Your task to perform on an android device: search for starred emails in the gmail app Image 0: 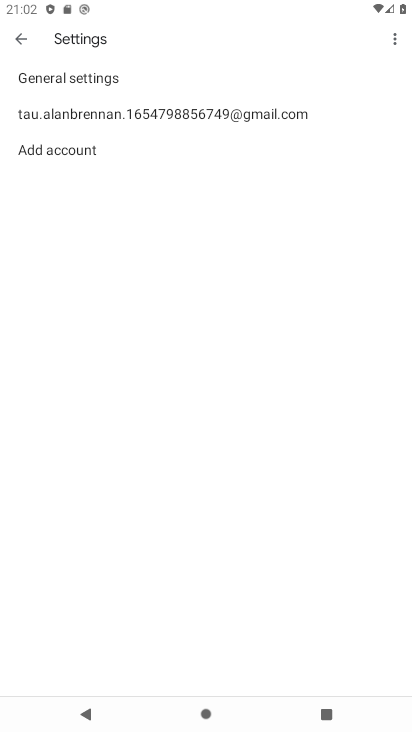
Step 0: drag from (254, 674) to (356, 10)
Your task to perform on an android device: search for starred emails in the gmail app Image 1: 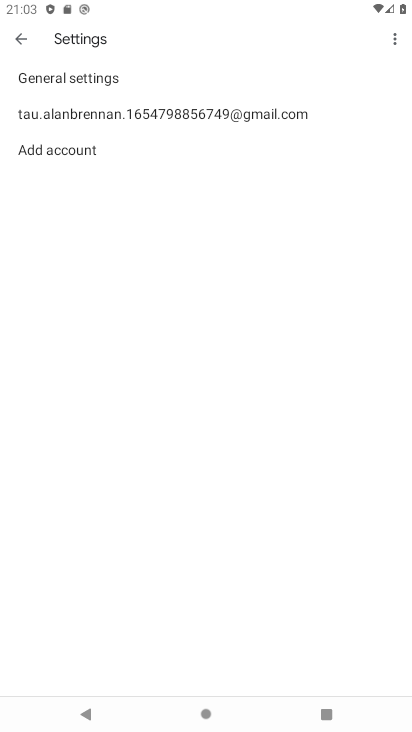
Step 1: click (16, 37)
Your task to perform on an android device: search for starred emails in the gmail app Image 2: 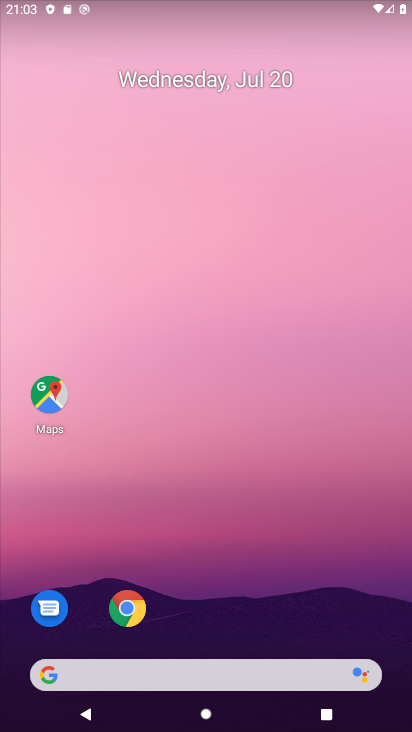
Step 2: drag from (251, 568) to (226, 83)
Your task to perform on an android device: search for starred emails in the gmail app Image 3: 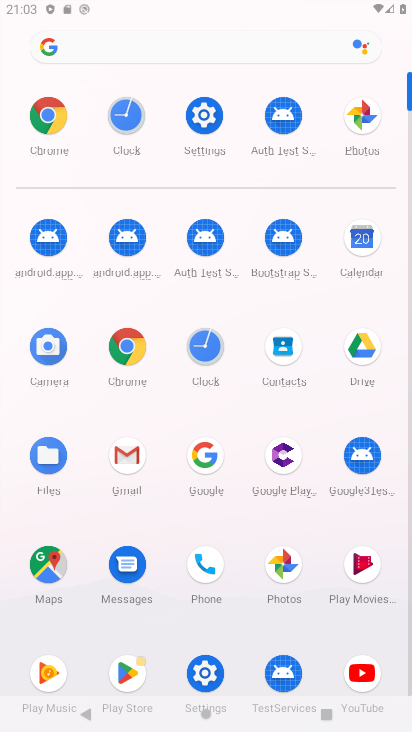
Step 3: drag from (194, 400) to (156, 131)
Your task to perform on an android device: search for starred emails in the gmail app Image 4: 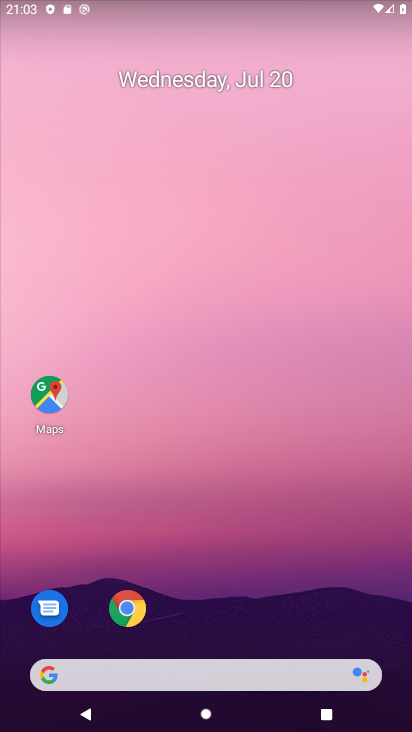
Step 4: drag from (212, 600) to (164, 111)
Your task to perform on an android device: search for starred emails in the gmail app Image 5: 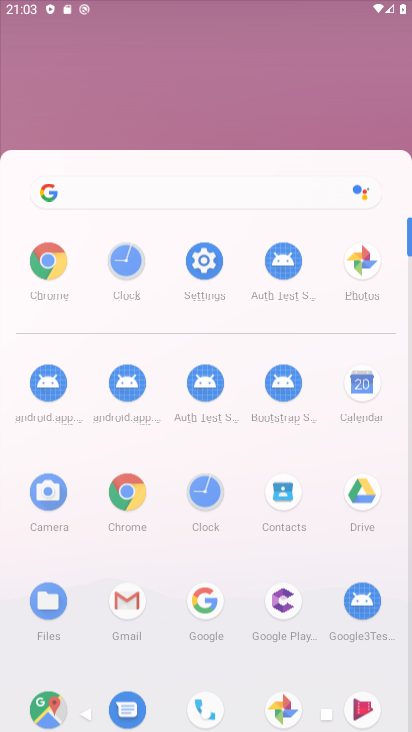
Step 5: drag from (224, 430) to (149, 67)
Your task to perform on an android device: search for starred emails in the gmail app Image 6: 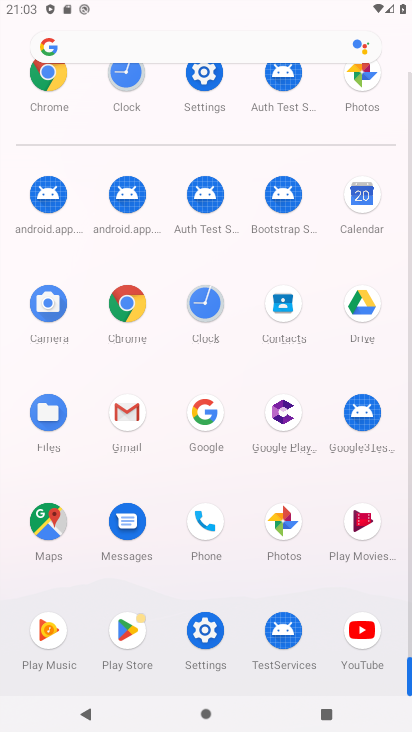
Step 6: click (130, 405)
Your task to perform on an android device: search for starred emails in the gmail app Image 7: 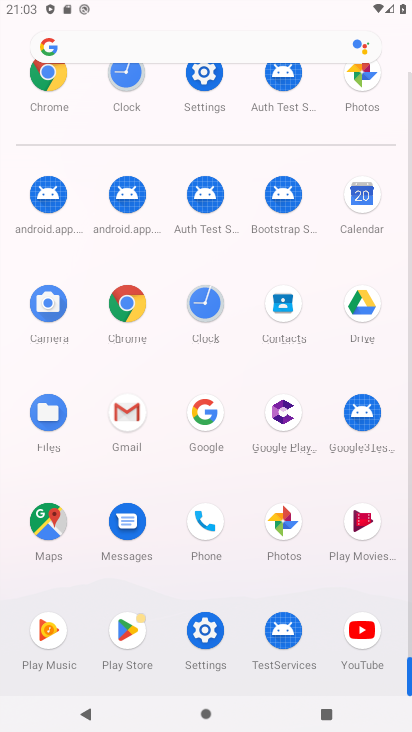
Step 7: click (130, 405)
Your task to perform on an android device: search for starred emails in the gmail app Image 8: 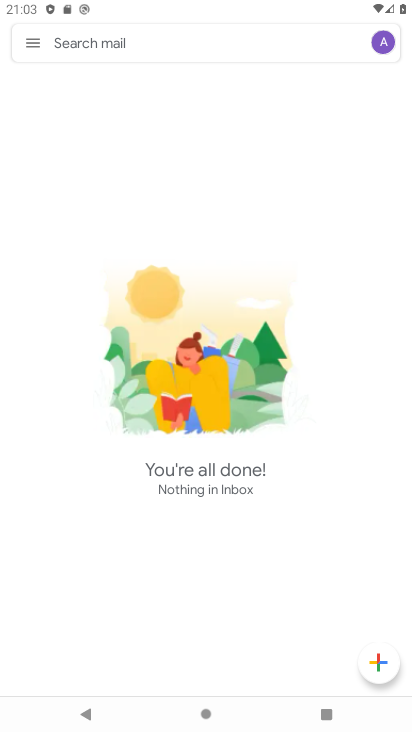
Step 8: click (51, 43)
Your task to perform on an android device: search for starred emails in the gmail app Image 9: 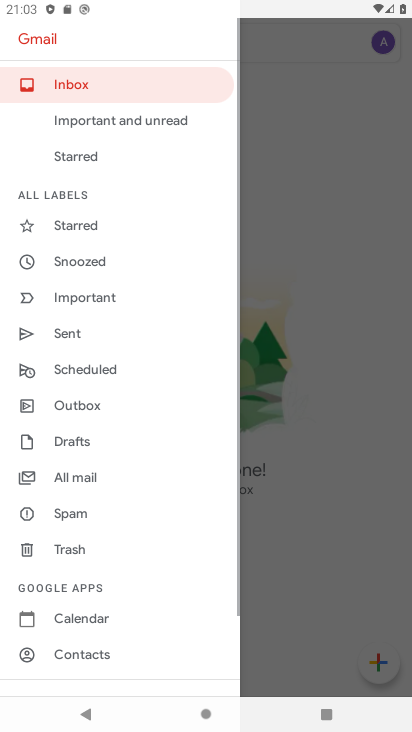
Step 9: click (36, 36)
Your task to perform on an android device: search for starred emails in the gmail app Image 10: 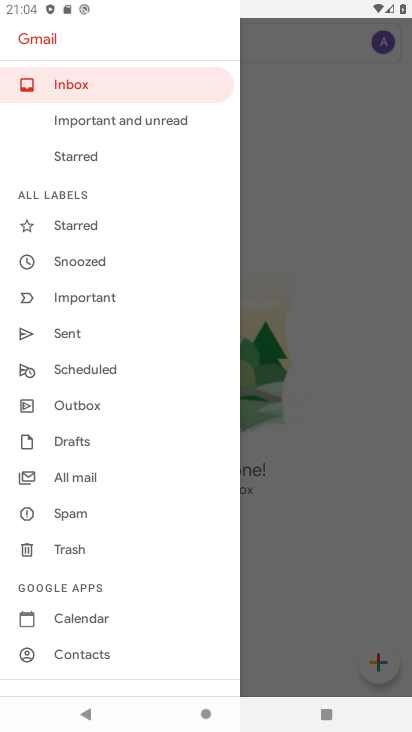
Step 10: click (81, 229)
Your task to perform on an android device: search for starred emails in the gmail app Image 11: 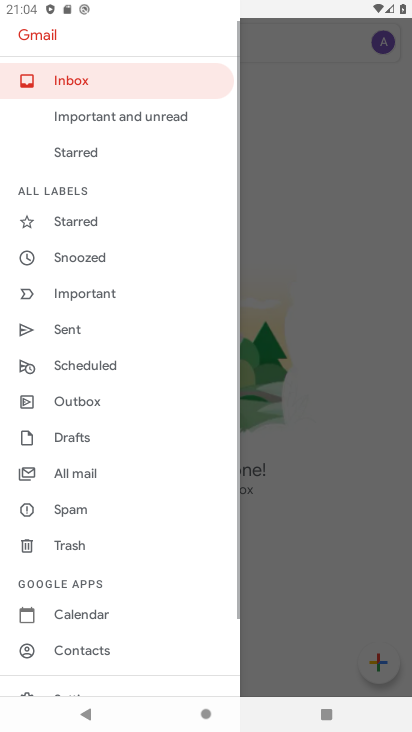
Step 11: click (79, 219)
Your task to perform on an android device: search for starred emails in the gmail app Image 12: 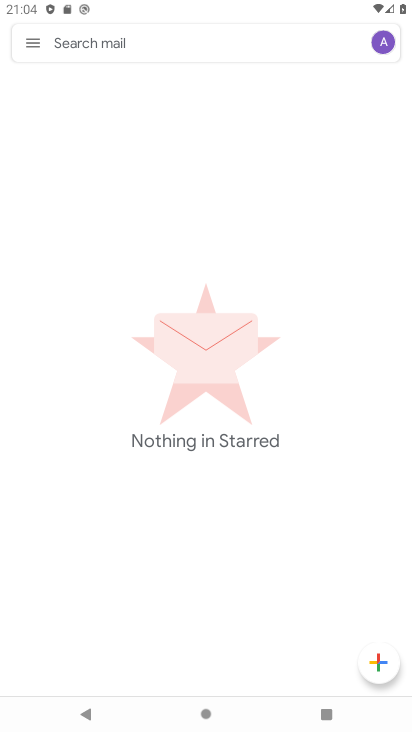
Step 12: task complete